Your task to perform on an android device: Open calendar and show me the first week of next month Image 0: 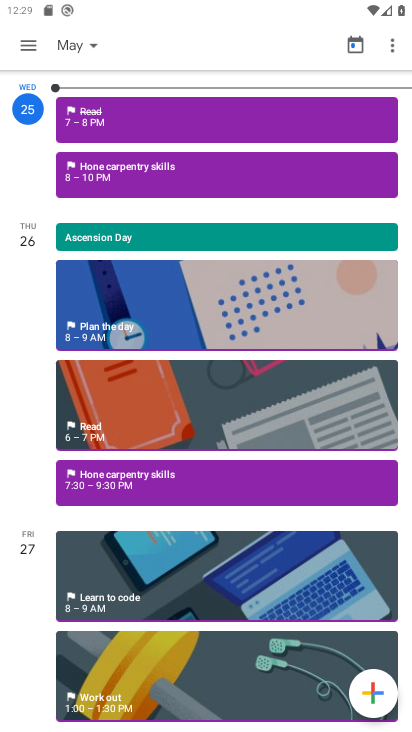
Step 0: press home button
Your task to perform on an android device: Open calendar and show me the first week of next month Image 1: 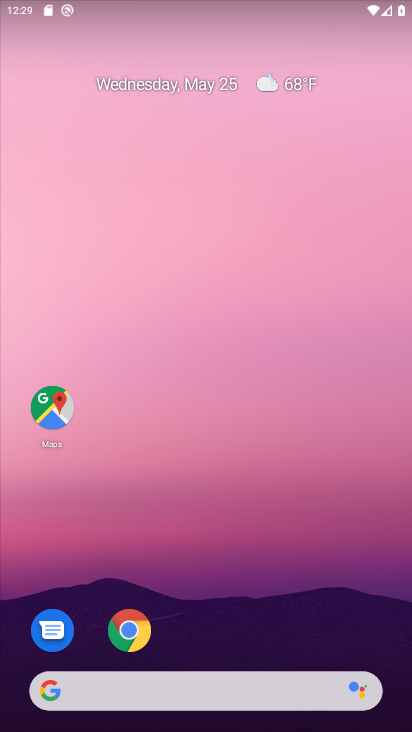
Step 1: drag from (235, 634) to (239, 225)
Your task to perform on an android device: Open calendar and show me the first week of next month Image 2: 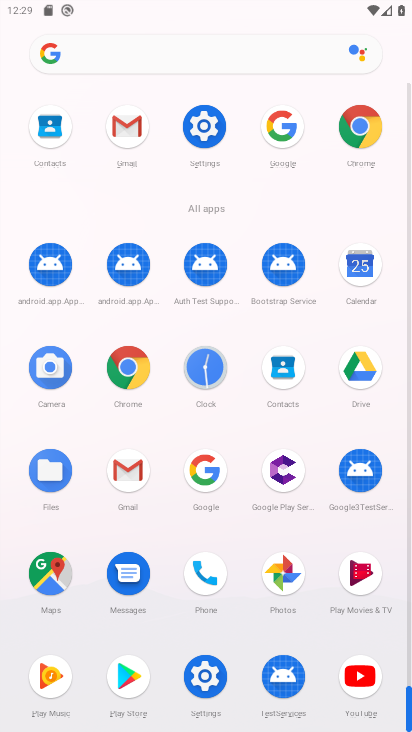
Step 2: click (364, 263)
Your task to perform on an android device: Open calendar and show me the first week of next month Image 3: 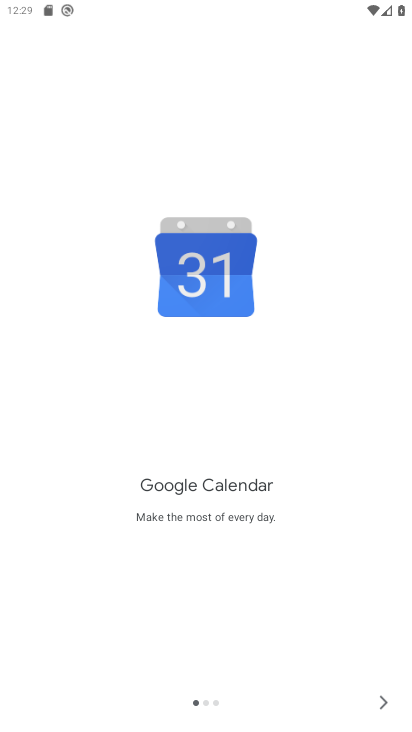
Step 3: click (385, 702)
Your task to perform on an android device: Open calendar and show me the first week of next month Image 4: 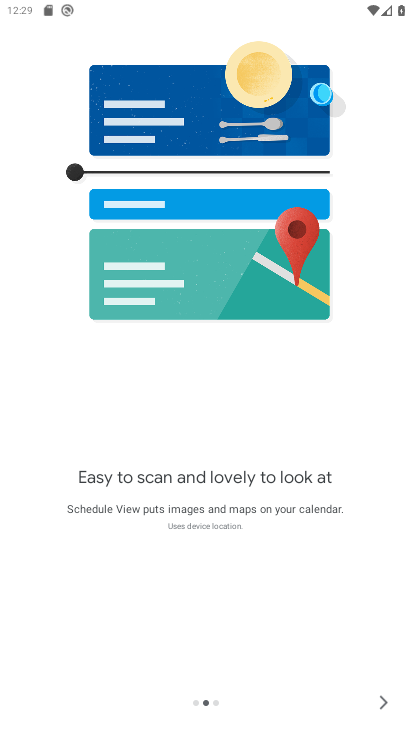
Step 4: click (385, 702)
Your task to perform on an android device: Open calendar and show me the first week of next month Image 5: 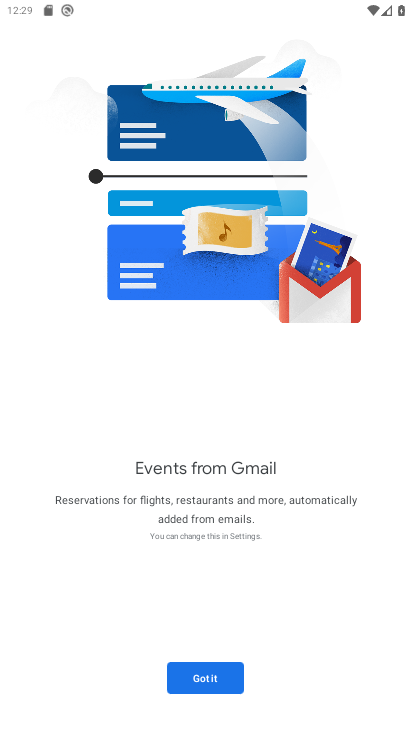
Step 5: click (385, 702)
Your task to perform on an android device: Open calendar and show me the first week of next month Image 6: 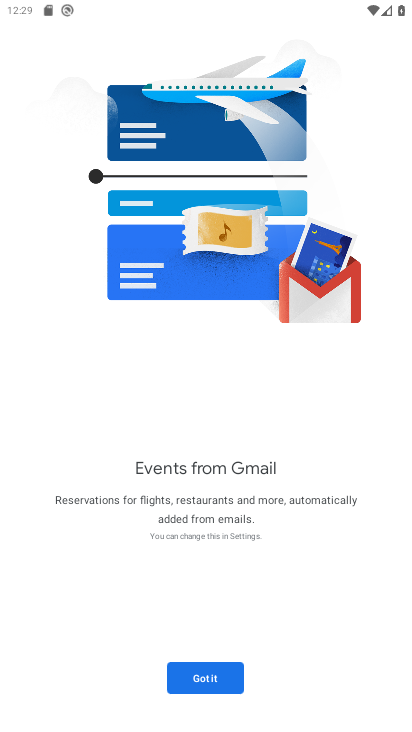
Step 6: click (229, 669)
Your task to perform on an android device: Open calendar and show me the first week of next month Image 7: 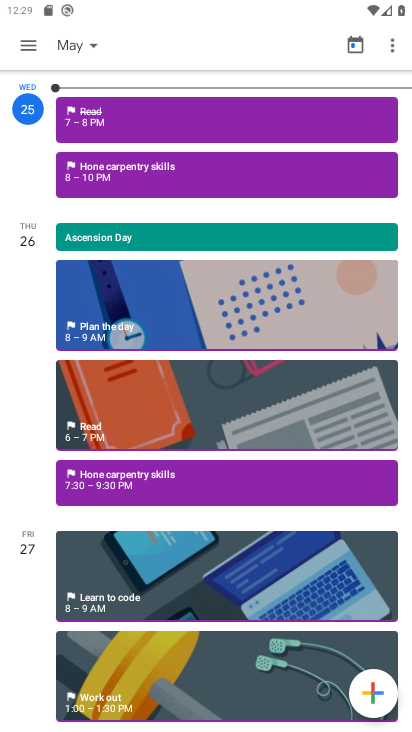
Step 7: click (84, 34)
Your task to perform on an android device: Open calendar and show me the first week of next month Image 8: 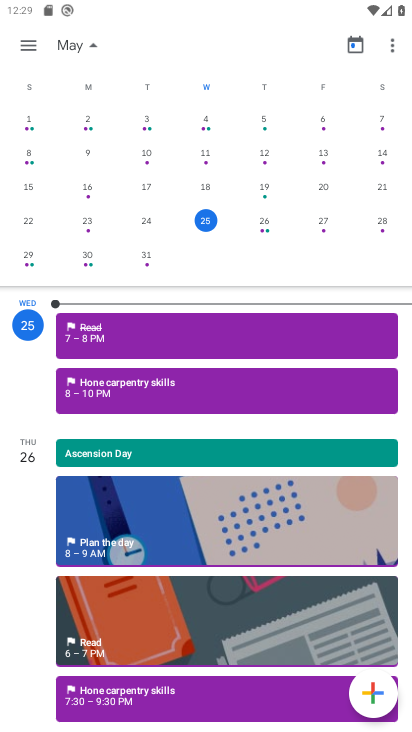
Step 8: drag from (357, 183) to (16, 165)
Your task to perform on an android device: Open calendar and show me the first week of next month Image 9: 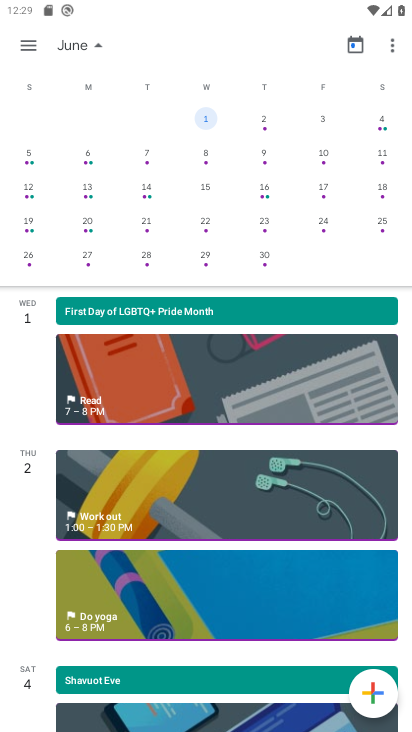
Step 9: click (205, 116)
Your task to perform on an android device: Open calendar and show me the first week of next month Image 10: 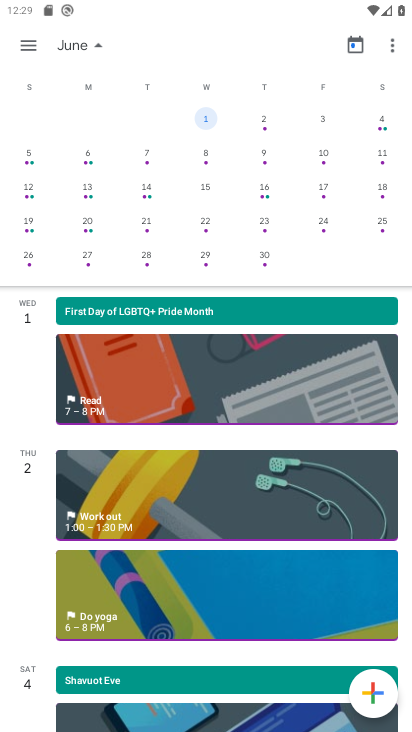
Step 10: task complete